Your task to perform on an android device: see sites visited before in the chrome app Image 0: 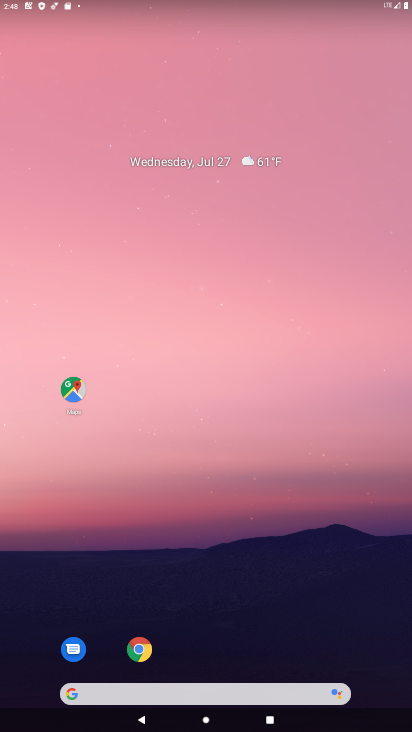
Step 0: click (140, 653)
Your task to perform on an android device: see sites visited before in the chrome app Image 1: 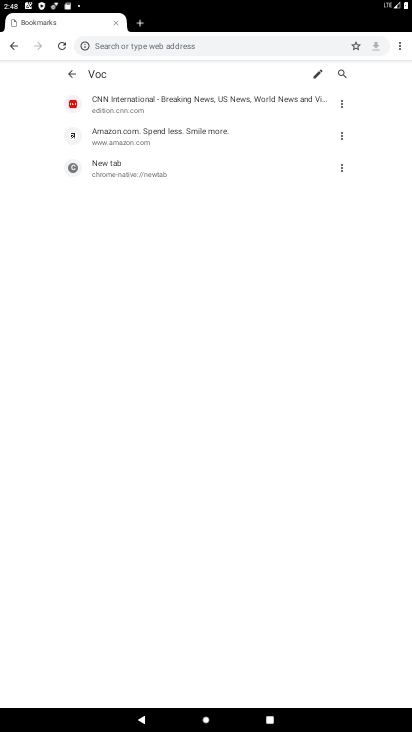
Step 1: click (398, 46)
Your task to perform on an android device: see sites visited before in the chrome app Image 2: 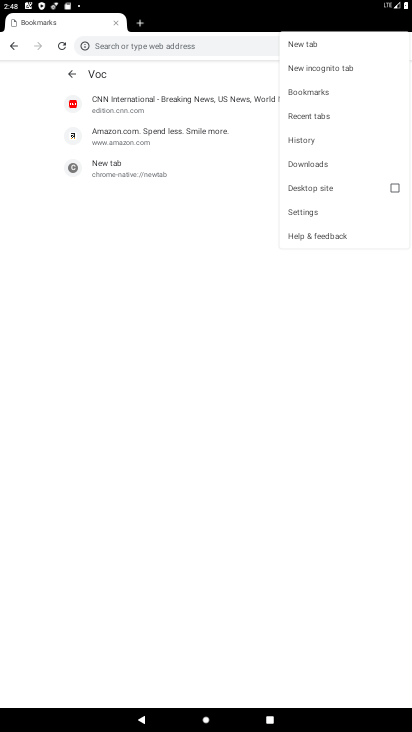
Step 2: click (308, 143)
Your task to perform on an android device: see sites visited before in the chrome app Image 3: 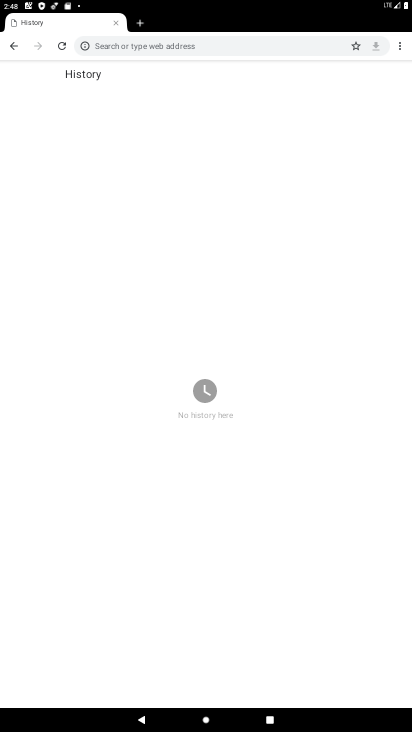
Step 3: task complete